Your task to perform on an android device: Turn off the flashlight Image 0: 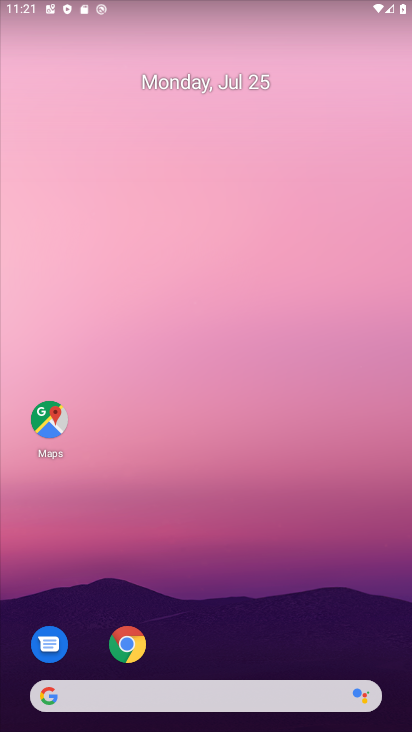
Step 0: drag from (280, 579) to (271, 207)
Your task to perform on an android device: Turn off the flashlight Image 1: 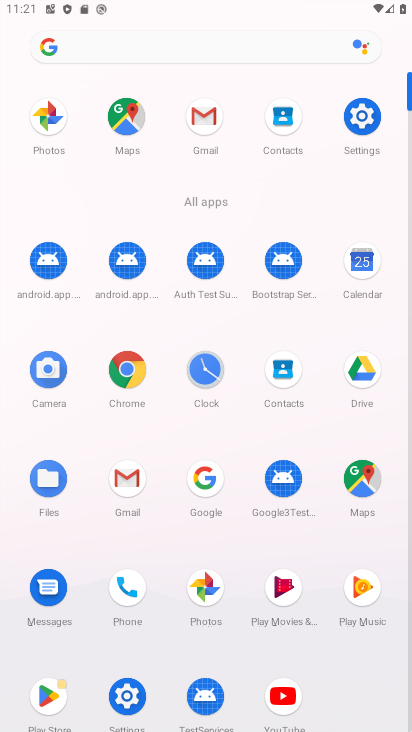
Step 1: task complete